Your task to perform on an android device: Go to internet settings Image 0: 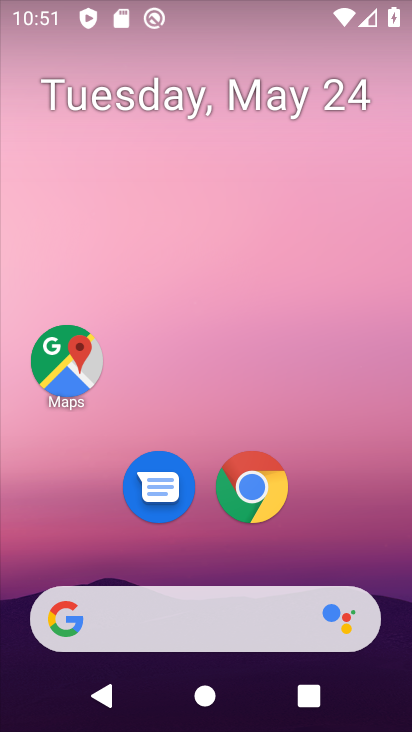
Step 0: drag from (164, 581) to (237, 78)
Your task to perform on an android device: Go to internet settings Image 1: 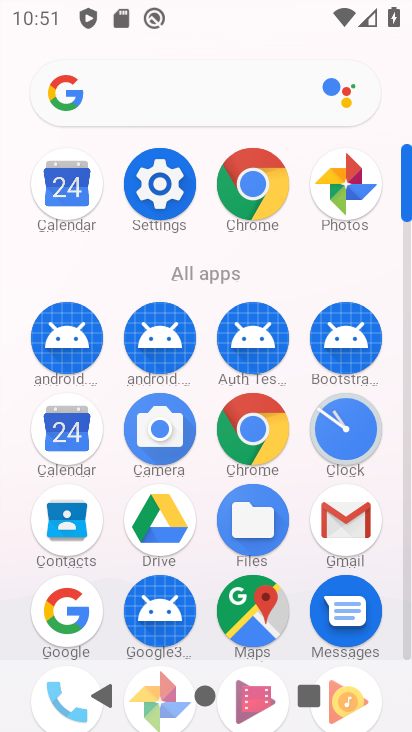
Step 1: click (160, 167)
Your task to perform on an android device: Go to internet settings Image 2: 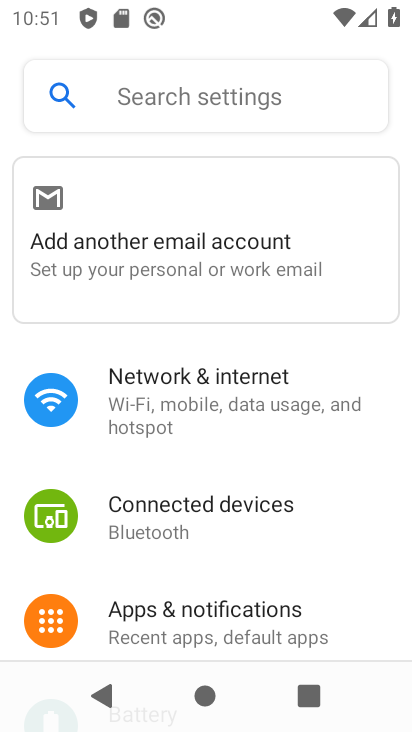
Step 2: click (176, 397)
Your task to perform on an android device: Go to internet settings Image 3: 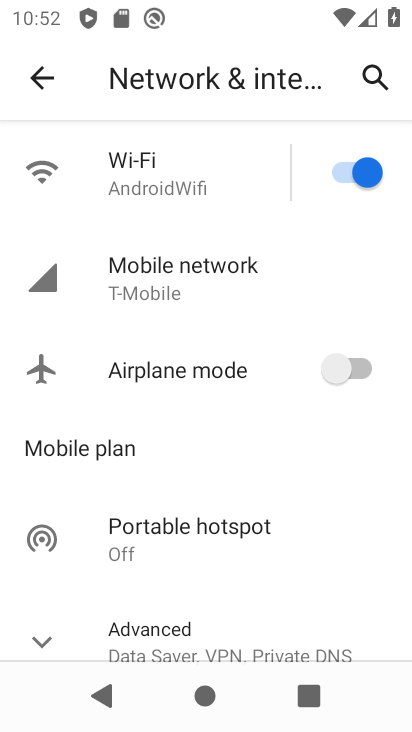
Step 3: task complete